Your task to perform on an android device: Open calendar and show me the third week of next month Image 0: 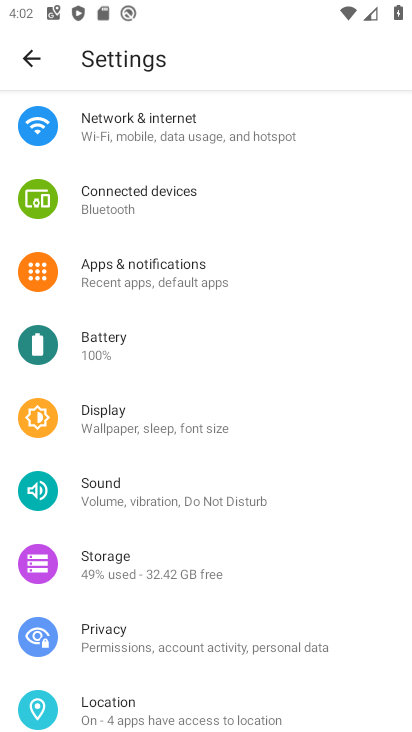
Step 0: press home button
Your task to perform on an android device: Open calendar and show me the third week of next month Image 1: 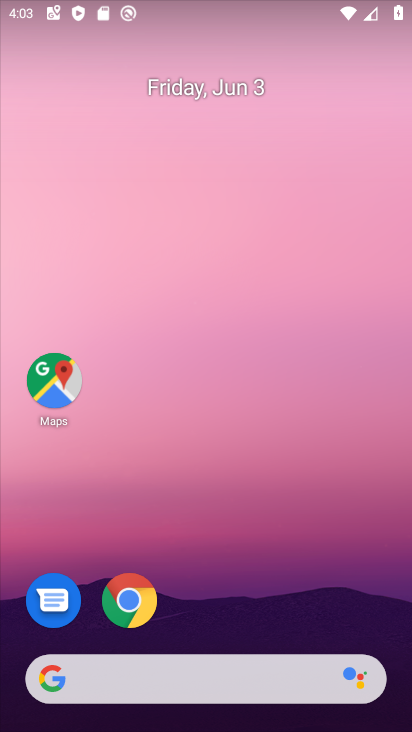
Step 1: drag from (205, 617) to (245, 133)
Your task to perform on an android device: Open calendar and show me the third week of next month Image 2: 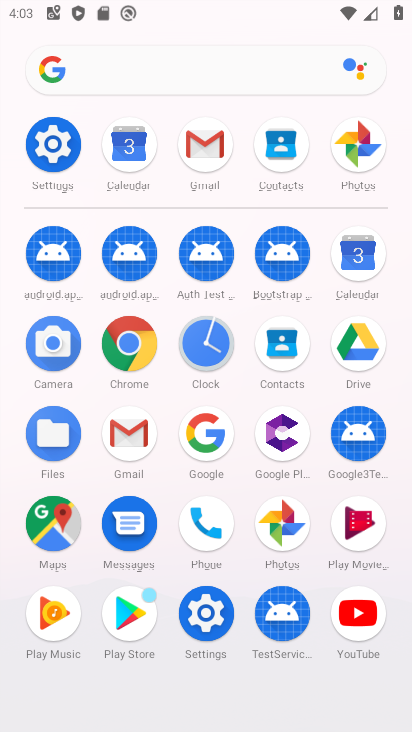
Step 2: click (377, 251)
Your task to perform on an android device: Open calendar and show me the third week of next month Image 3: 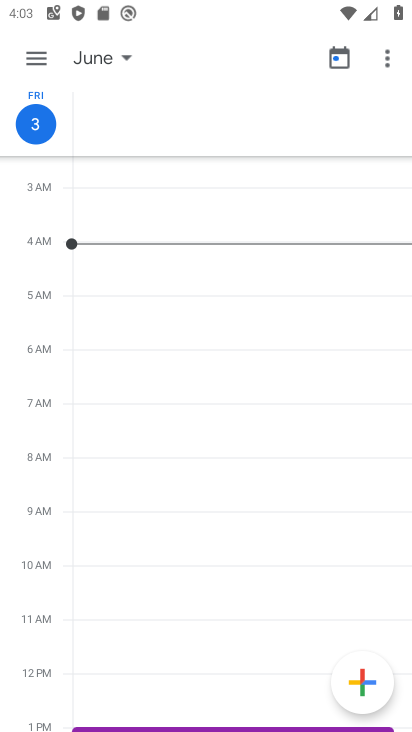
Step 3: click (41, 54)
Your task to perform on an android device: Open calendar and show me the third week of next month Image 4: 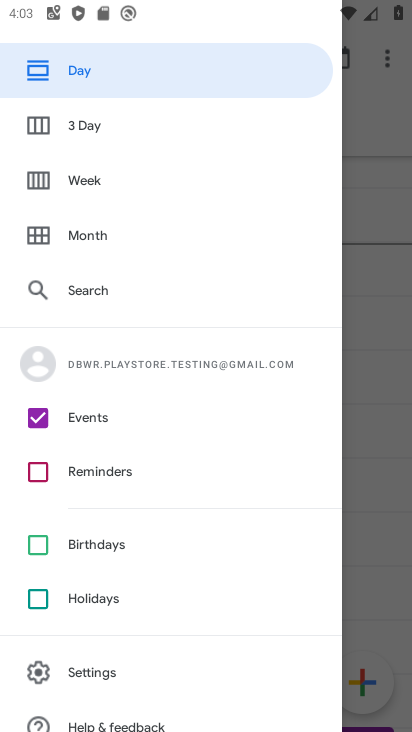
Step 4: click (98, 183)
Your task to perform on an android device: Open calendar and show me the third week of next month Image 5: 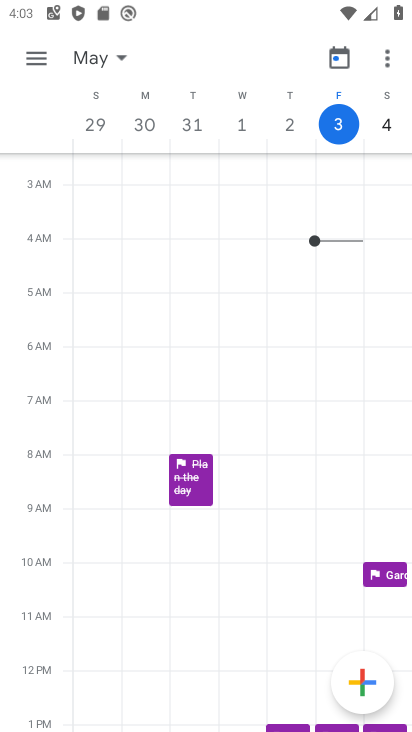
Step 5: click (96, 54)
Your task to perform on an android device: Open calendar and show me the third week of next month Image 6: 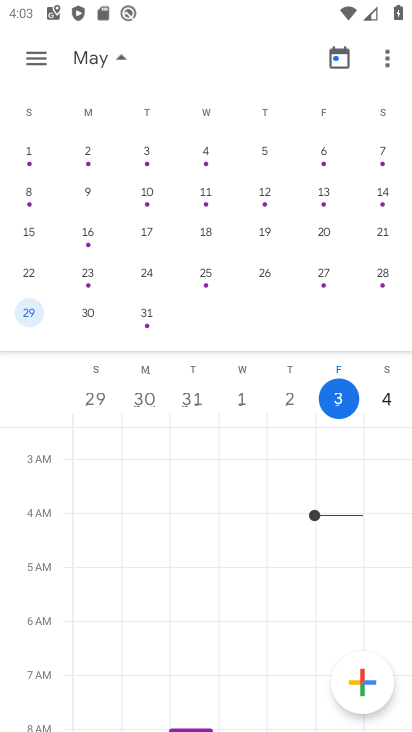
Step 6: drag from (327, 248) to (40, 206)
Your task to perform on an android device: Open calendar and show me the third week of next month Image 7: 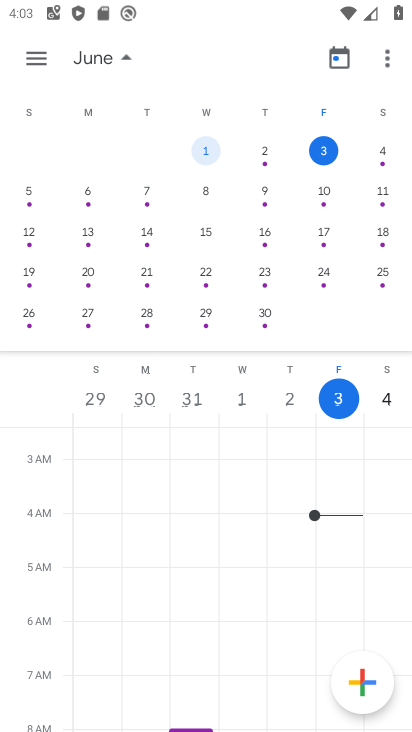
Step 7: drag from (370, 218) to (8, 217)
Your task to perform on an android device: Open calendar and show me the third week of next month Image 8: 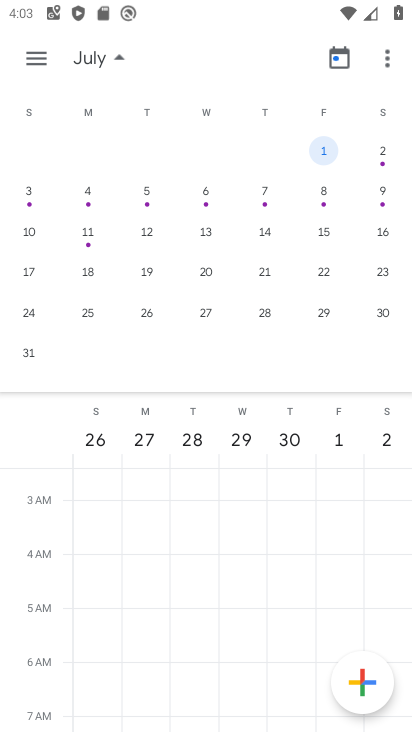
Step 8: click (314, 277)
Your task to perform on an android device: Open calendar and show me the third week of next month Image 9: 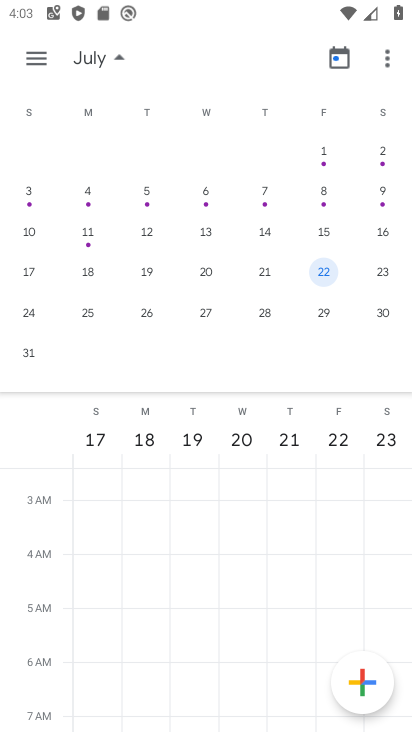
Step 9: click (333, 278)
Your task to perform on an android device: Open calendar and show me the third week of next month Image 10: 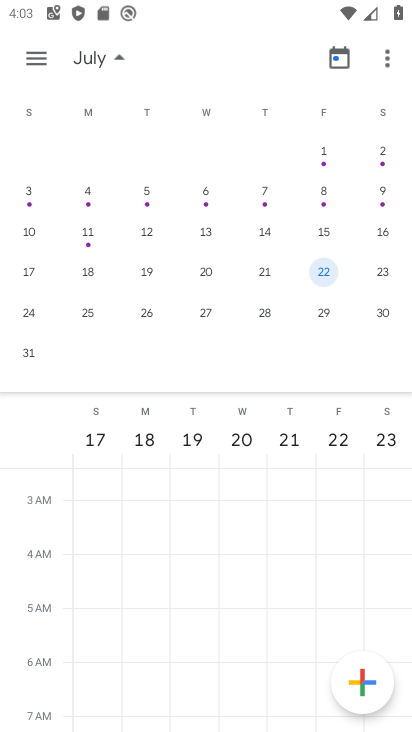
Step 10: click (34, 57)
Your task to perform on an android device: Open calendar and show me the third week of next month Image 11: 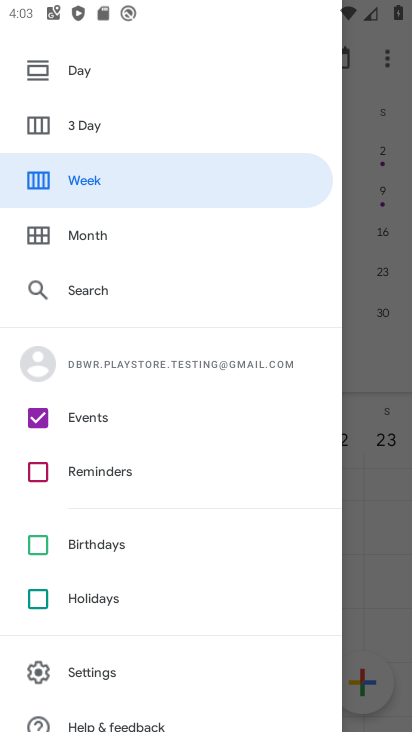
Step 11: click (105, 154)
Your task to perform on an android device: Open calendar and show me the third week of next month Image 12: 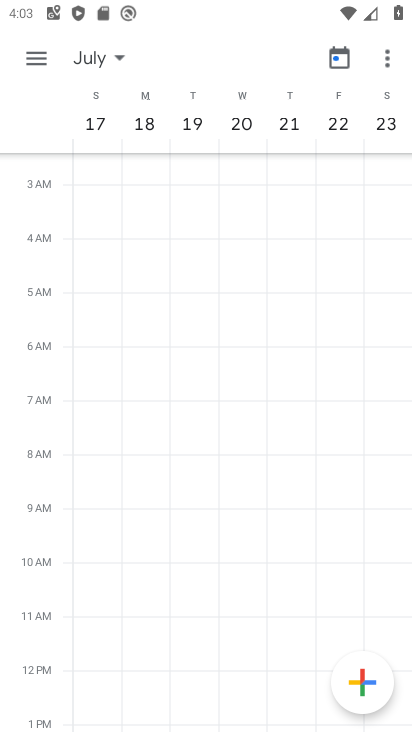
Step 12: task complete